Your task to perform on an android device: change the clock display to digital Image 0: 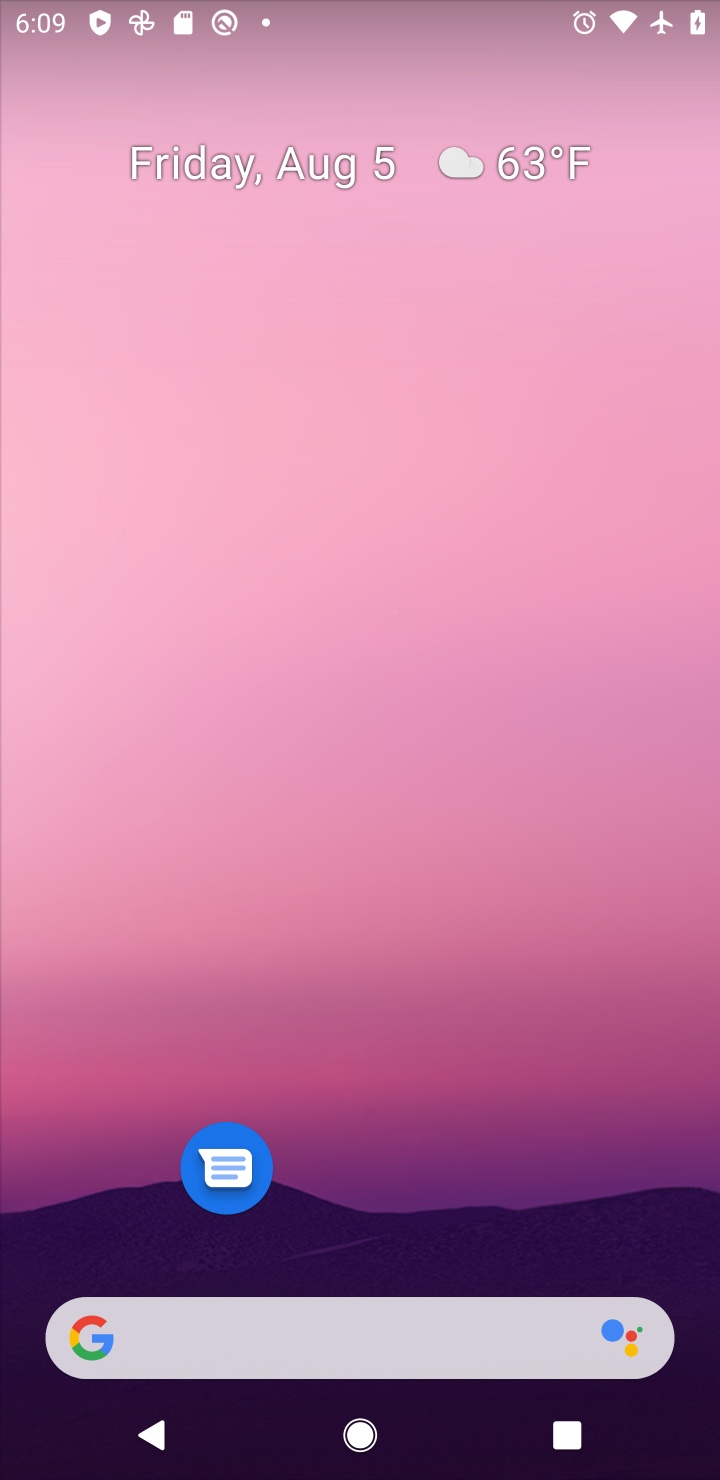
Step 0: press home button
Your task to perform on an android device: change the clock display to digital Image 1: 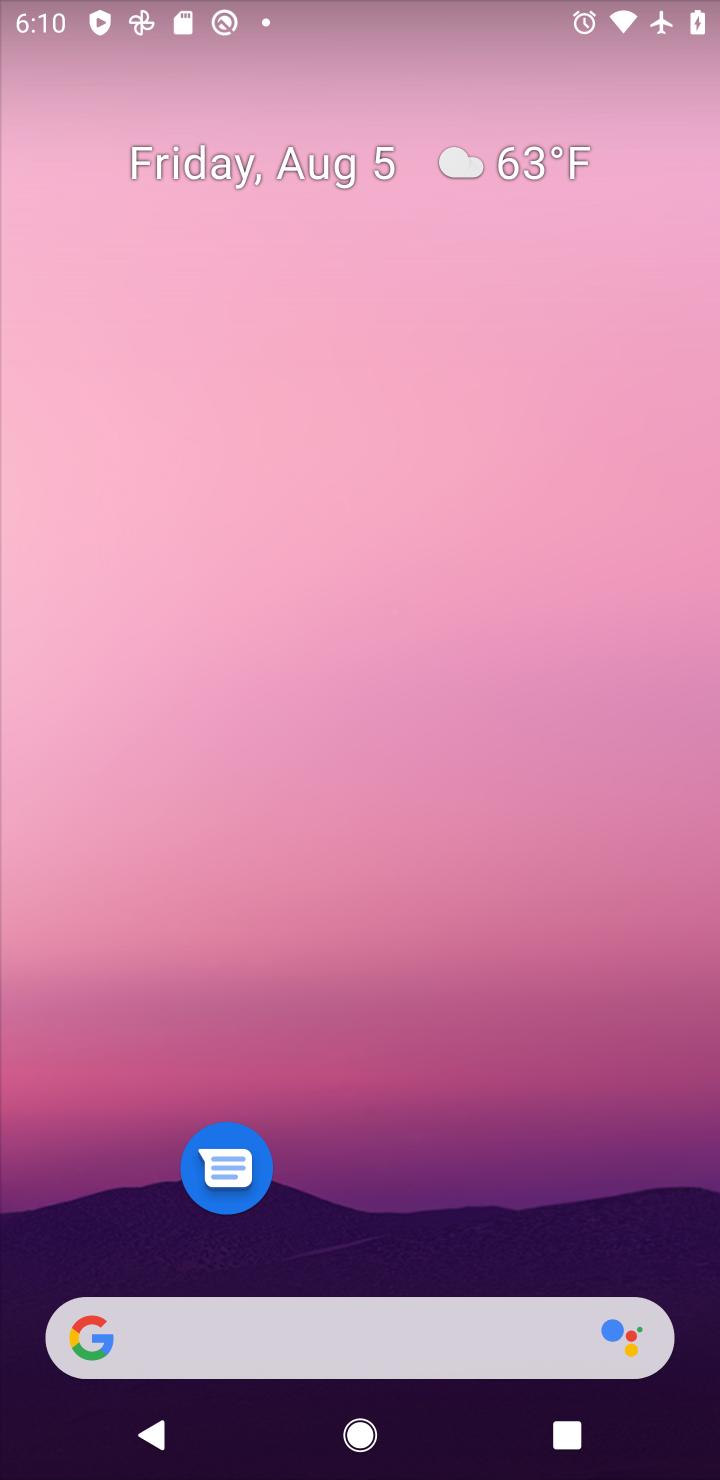
Step 1: drag from (412, 1259) to (543, 429)
Your task to perform on an android device: change the clock display to digital Image 2: 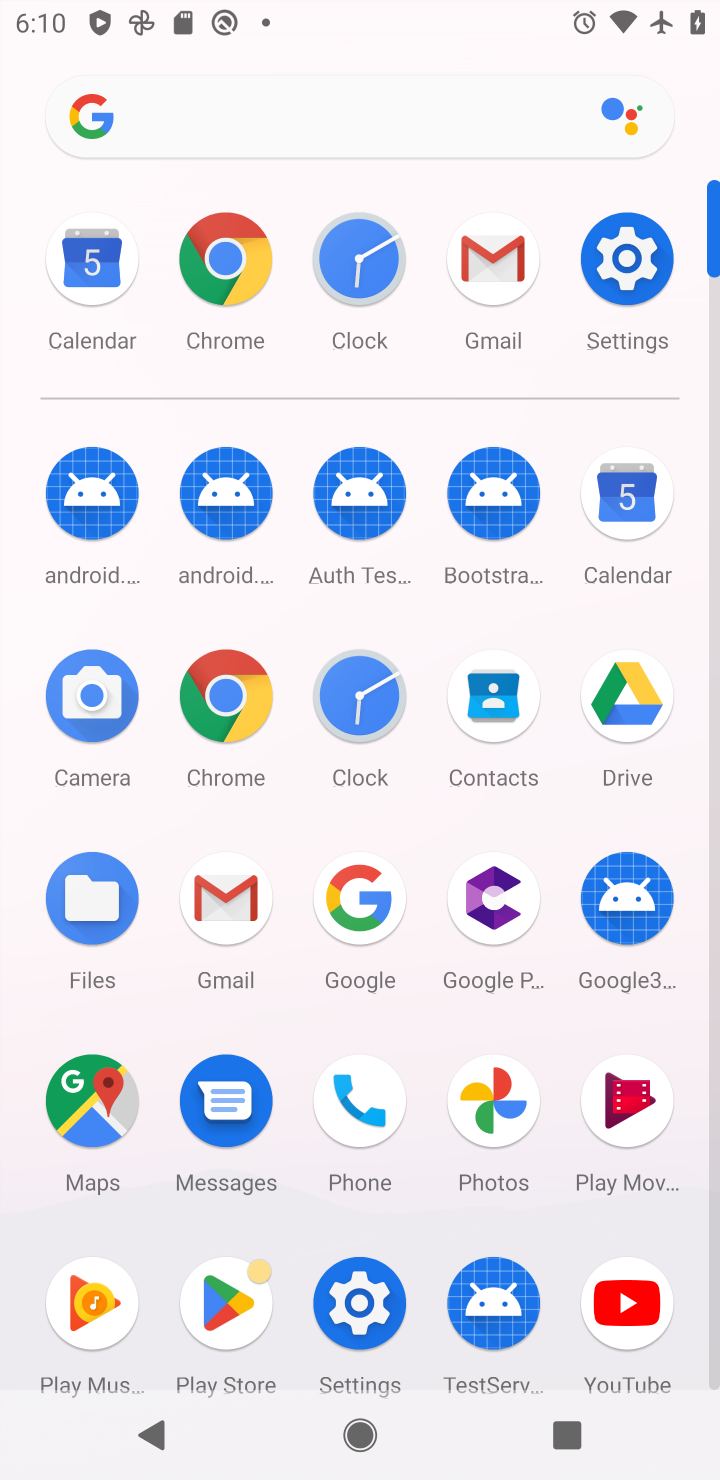
Step 2: click (340, 700)
Your task to perform on an android device: change the clock display to digital Image 3: 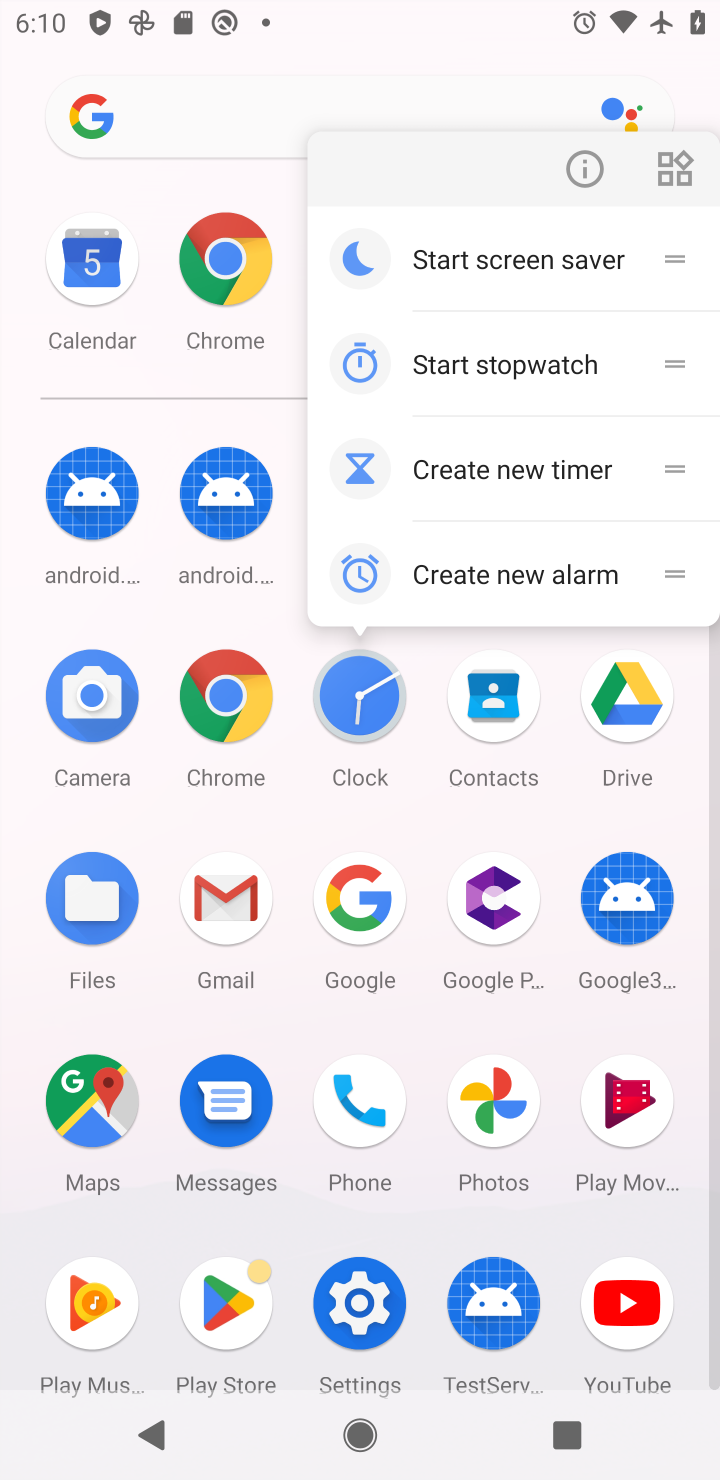
Step 3: click (340, 700)
Your task to perform on an android device: change the clock display to digital Image 4: 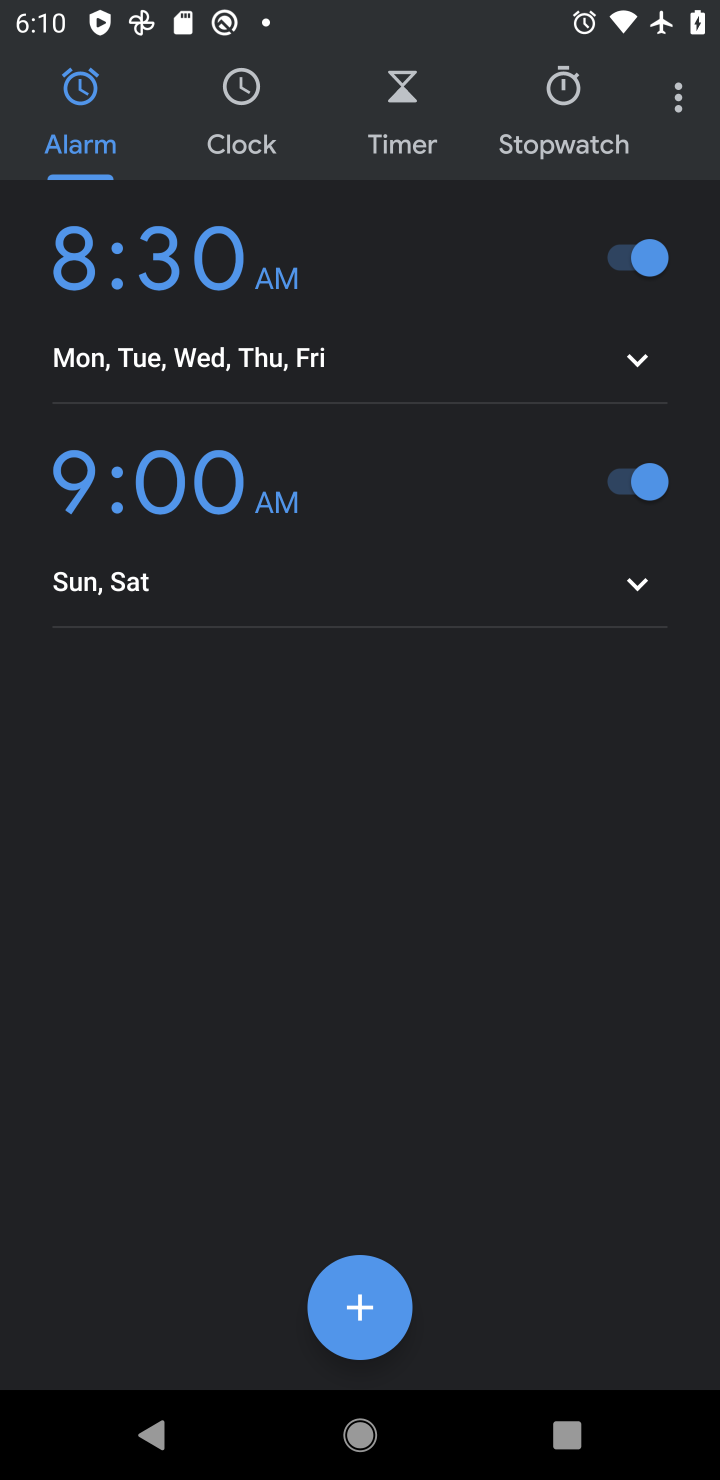
Step 4: click (682, 92)
Your task to perform on an android device: change the clock display to digital Image 5: 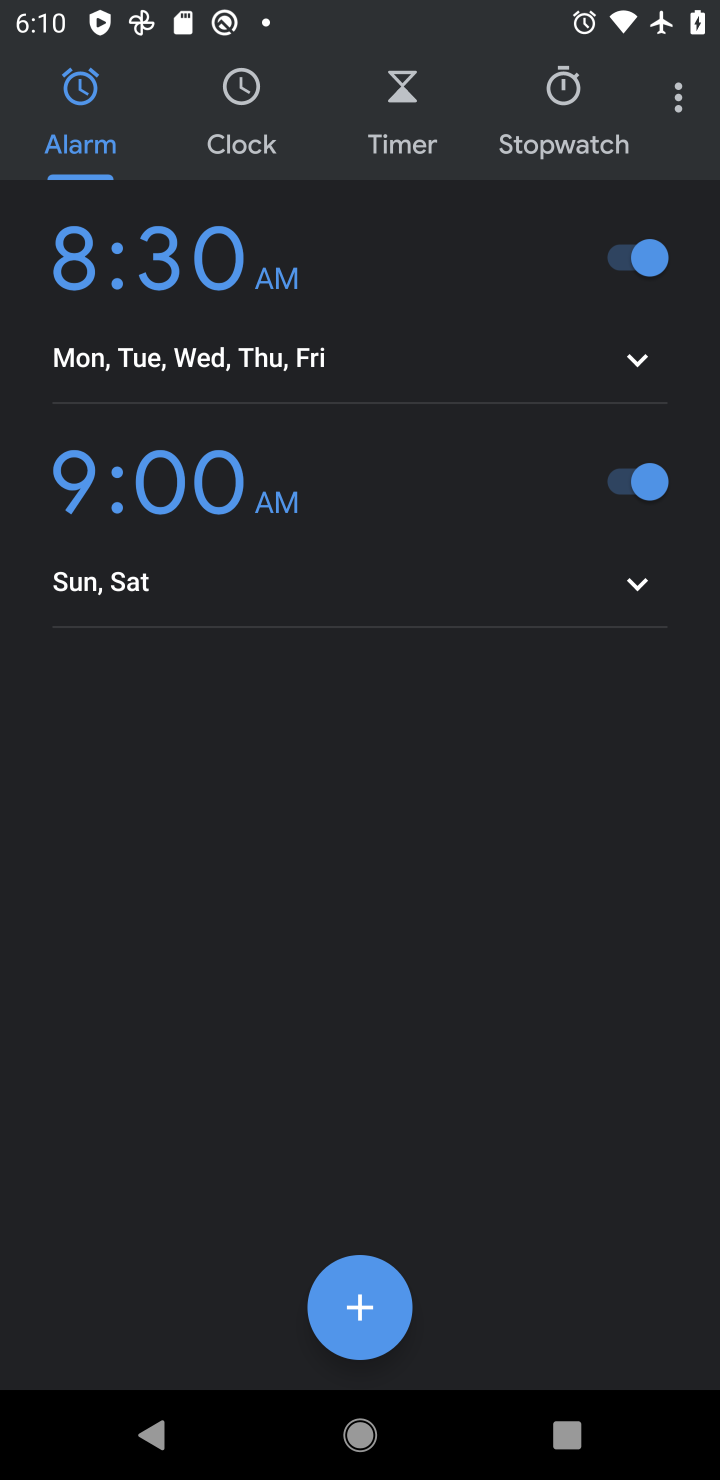
Step 5: click (676, 119)
Your task to perform on an android device: change the clock display to digital Image 6: 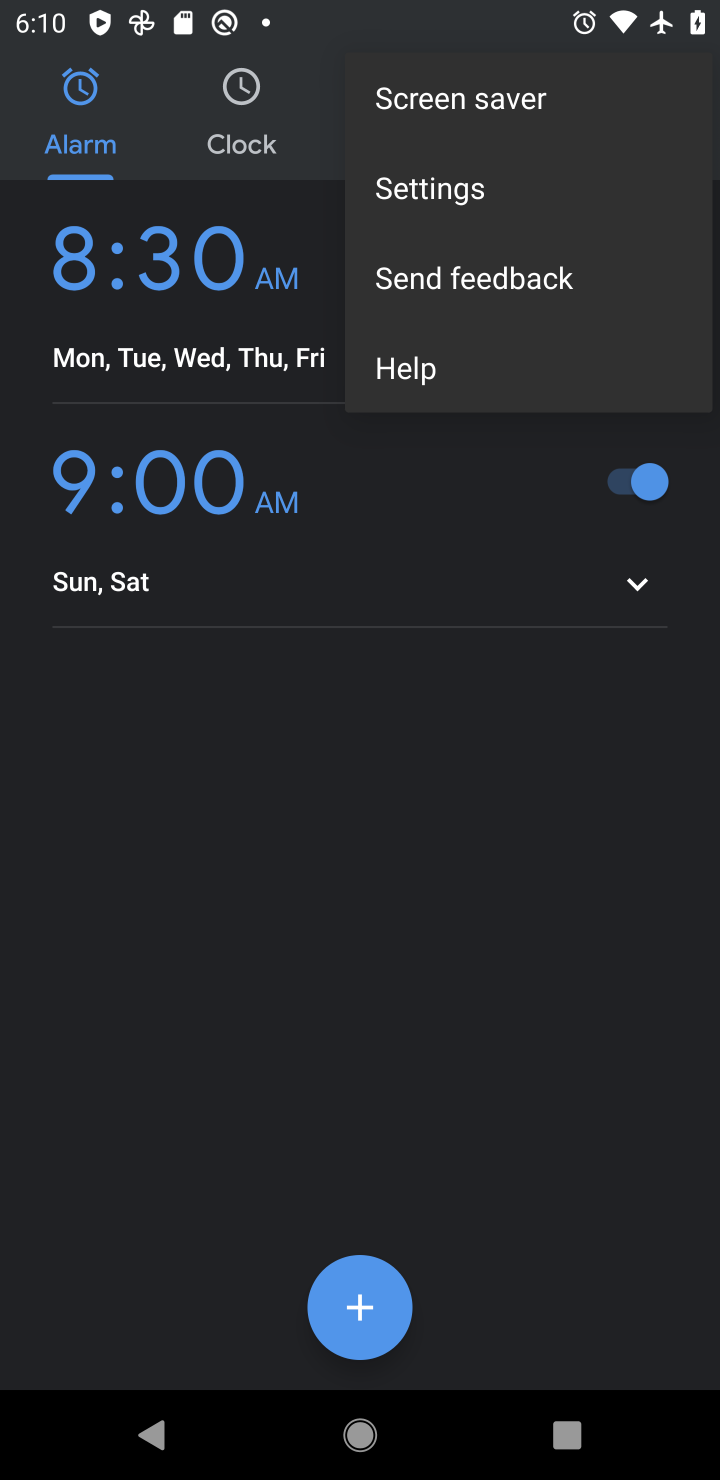
Step 6: click (422, 196)
Your task to perform on an android device: change the clock display to digital Image 7: 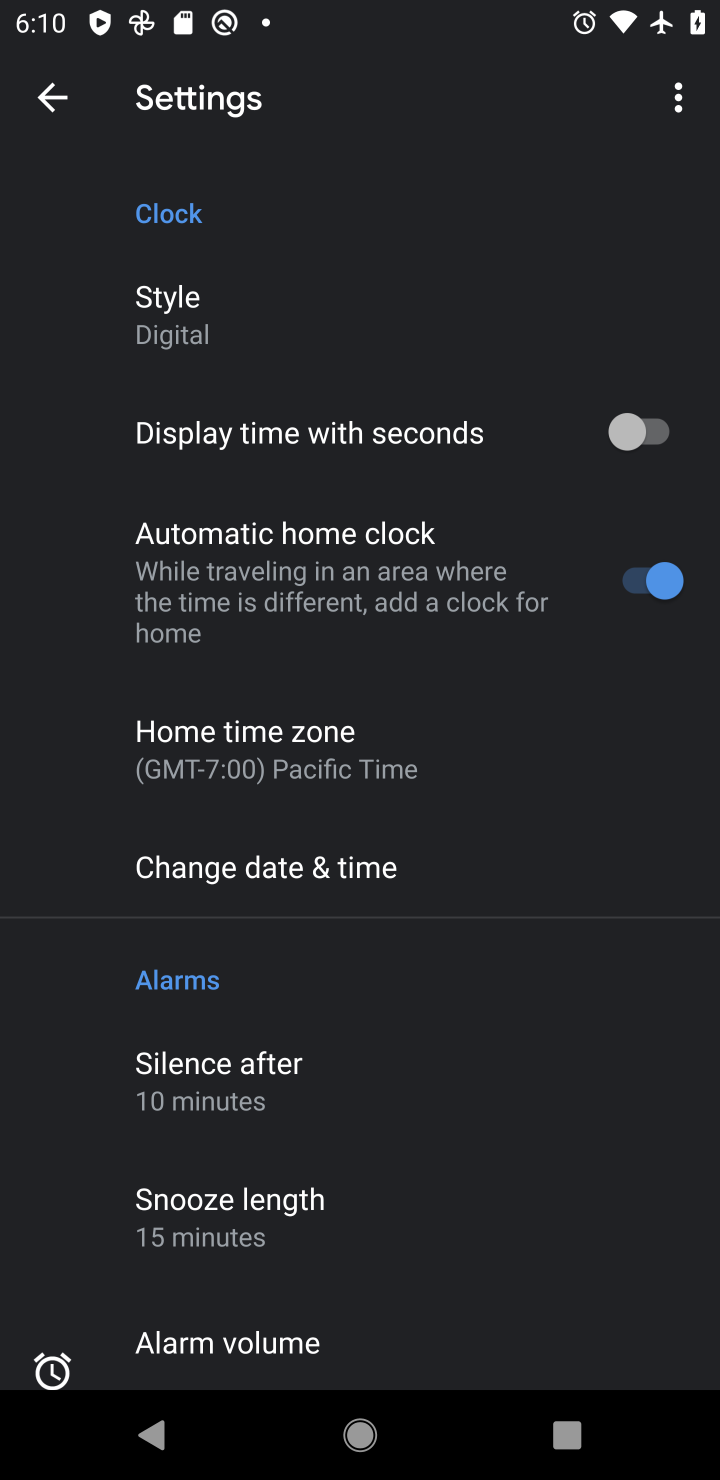
Step 7: click (163, 313)
Your task to perform on an android device: change the clock display to digital Image 8: 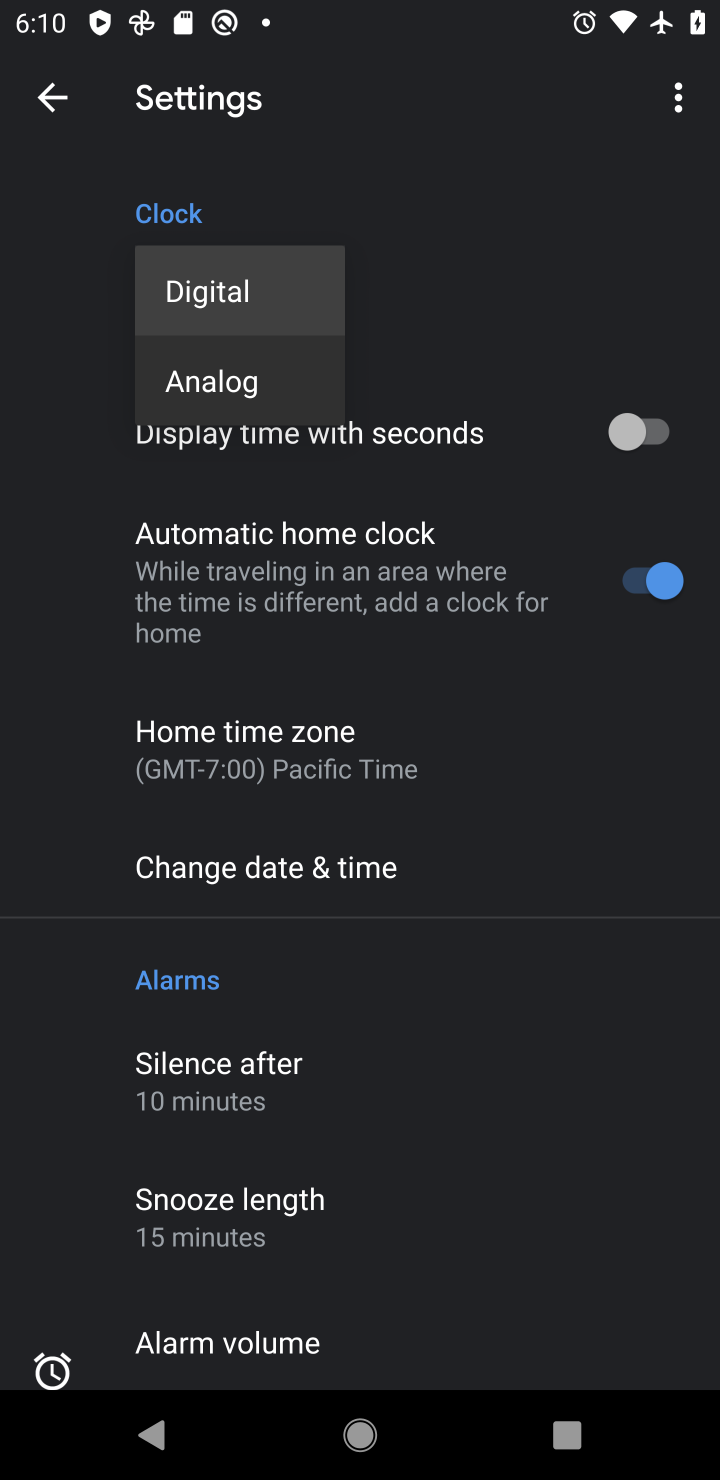
Step 8: task complete